Your task to perform on an android device: open app "Adobe Acrobat Reader" (install if not already installed) and go to login screen Image 0: 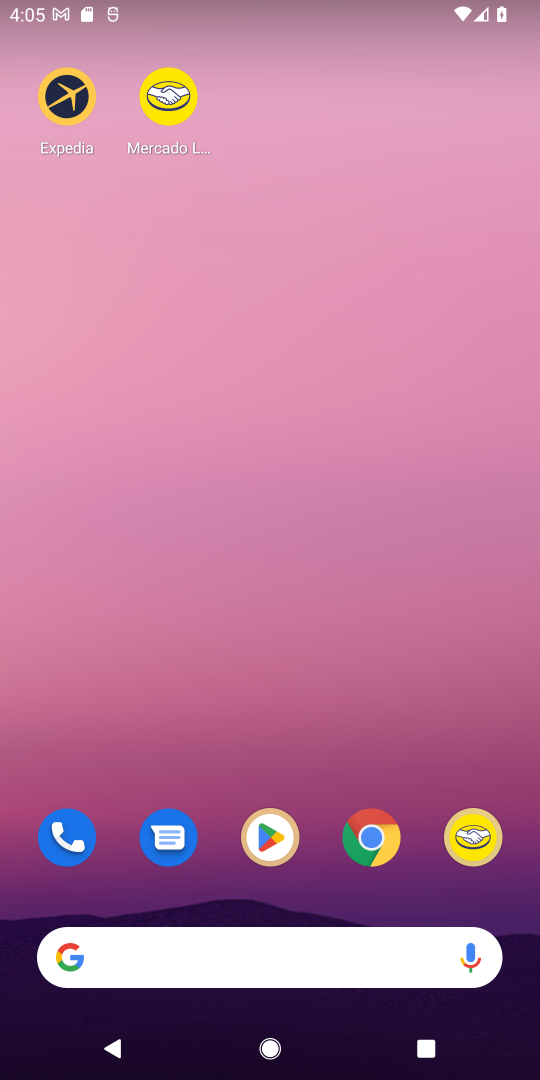
Step 0: press home button
Your task to perform on an android device: open app "Adobe Acrobat Reader" (install if not already installed) and go to login screen Image 1: 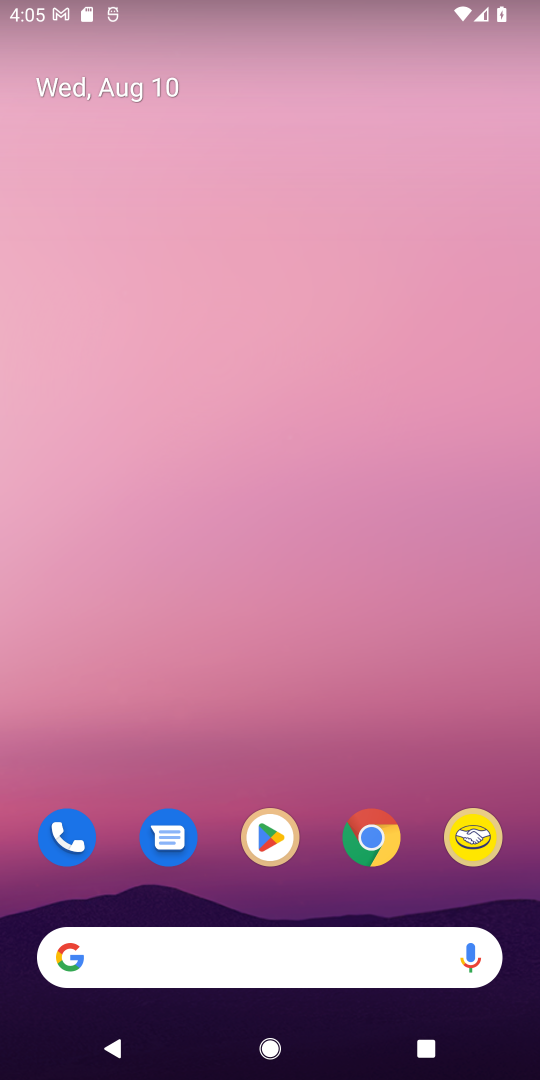
Step 1: click (266, 825)
Your task to perform on an android device: open app "Adobe Acrobat Reader" (install if not already installed) and go to login screen Image 2: 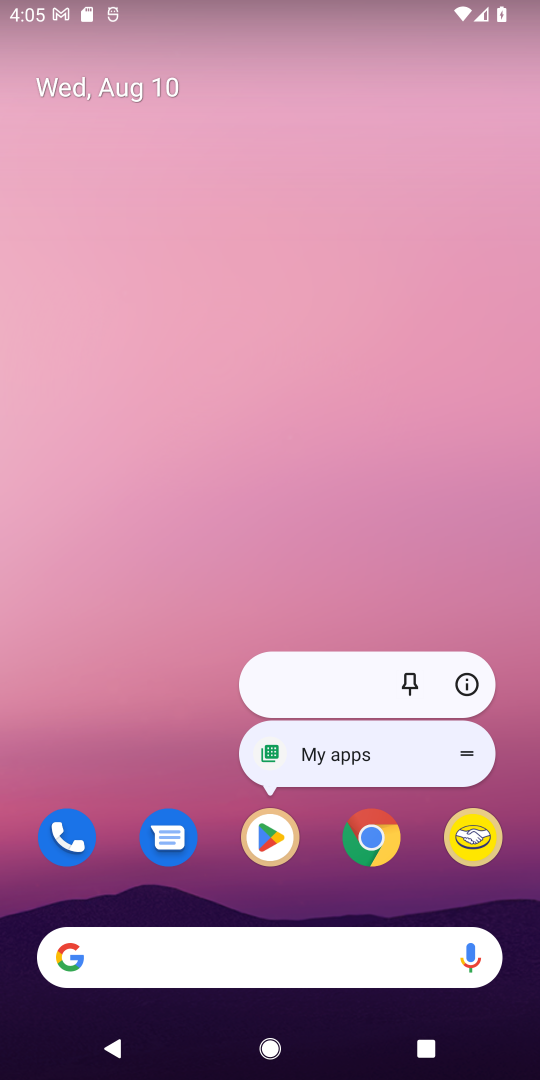
Step 2: click (266, 823)
Your task to perform on an android device: open app "Adobe Acrobat Reader" (install if not already installed) and go to login screen Image 3: 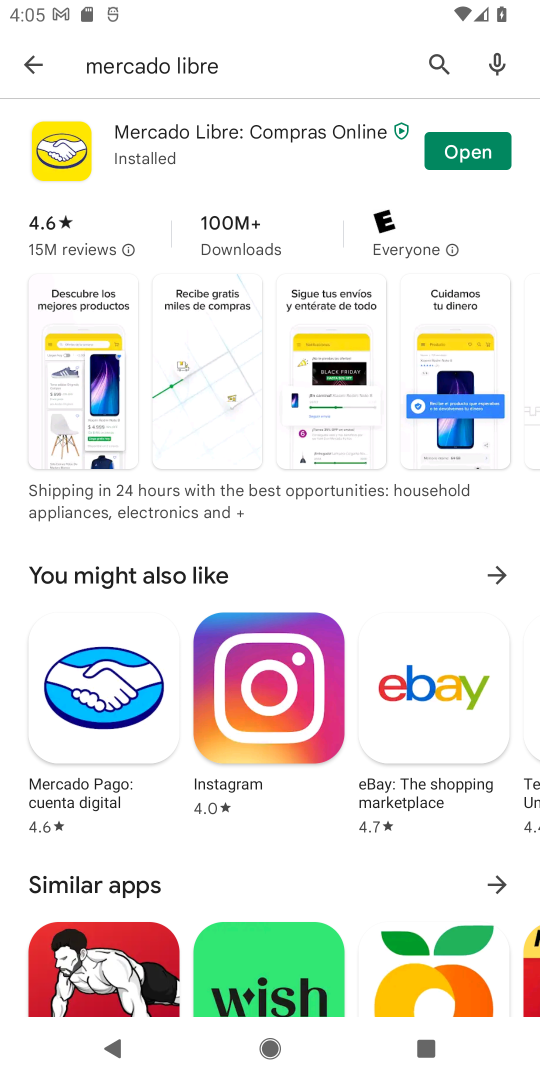
Step 3: click (435, 59)
Your task to perform on an android device: open app "Adobe Acrobat Reader" (install if not already installed) and go to login screen Image 4: 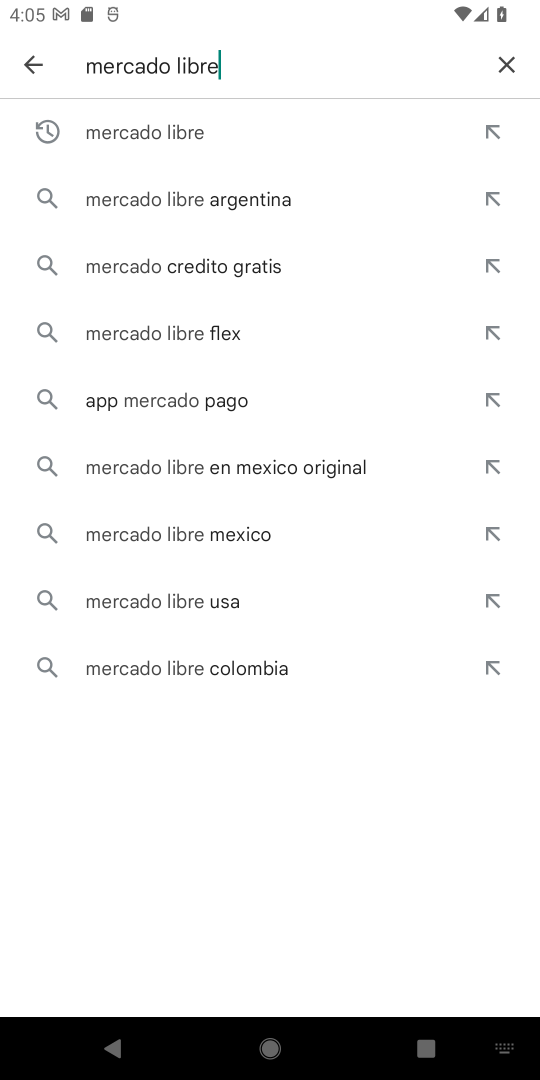
Step 4: click (502, 65)
Your task to perform on an android device: open app "Adobe Acrobat Reader" (install if not already installed) and go to login screen Image 5: 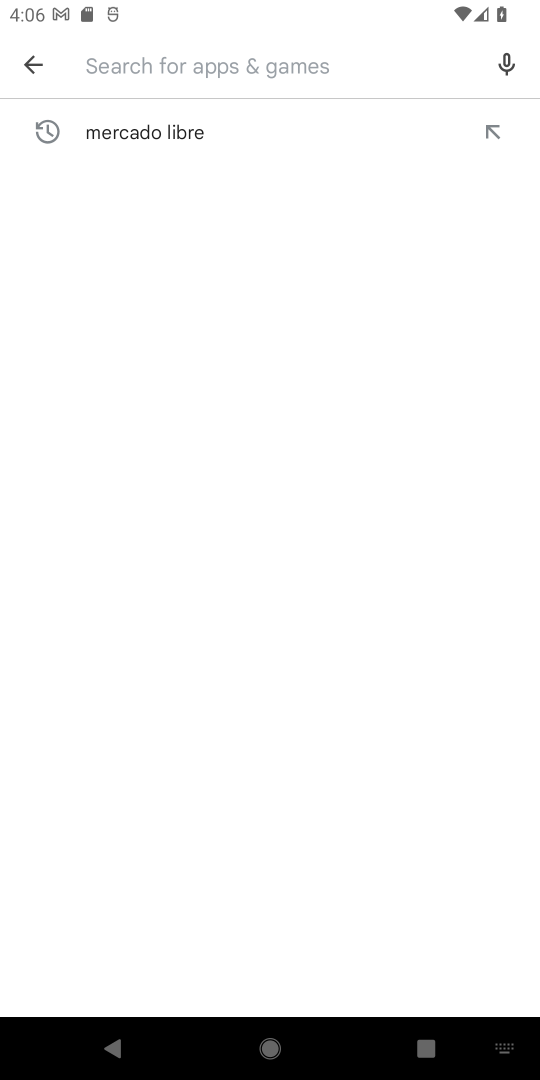
Step 5: type "Adobe Acrobat Reader"
Your task to perform on an android device: open app "Adobe Acrobat Reader" (install if not already installed) and go to login screen Image 6: 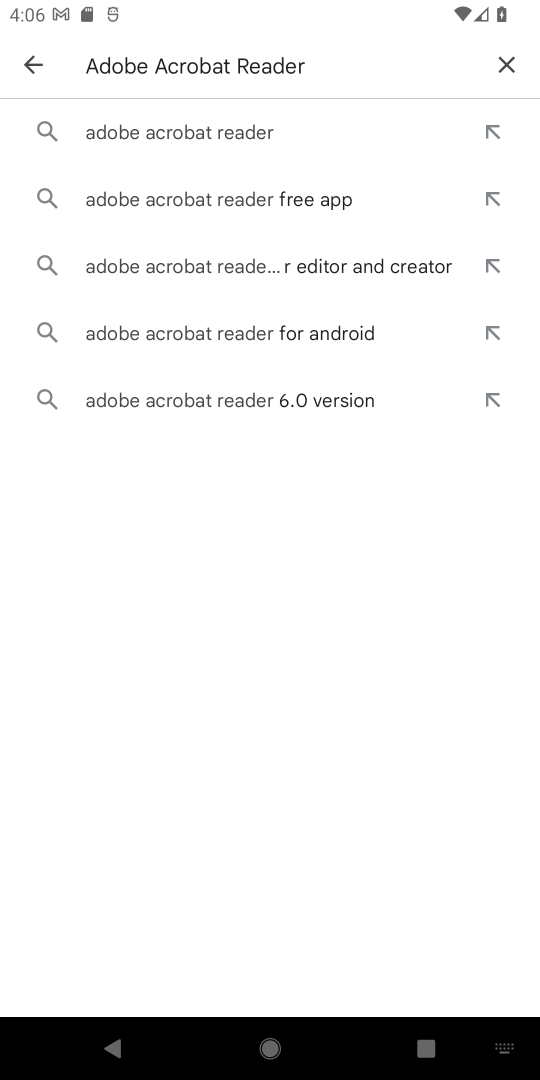
Step 6: click (259, 134)
Your task to perform on an android device: open app "Adobe Acrobat Reader" (install if not already installed) and go to login screen Image 7: 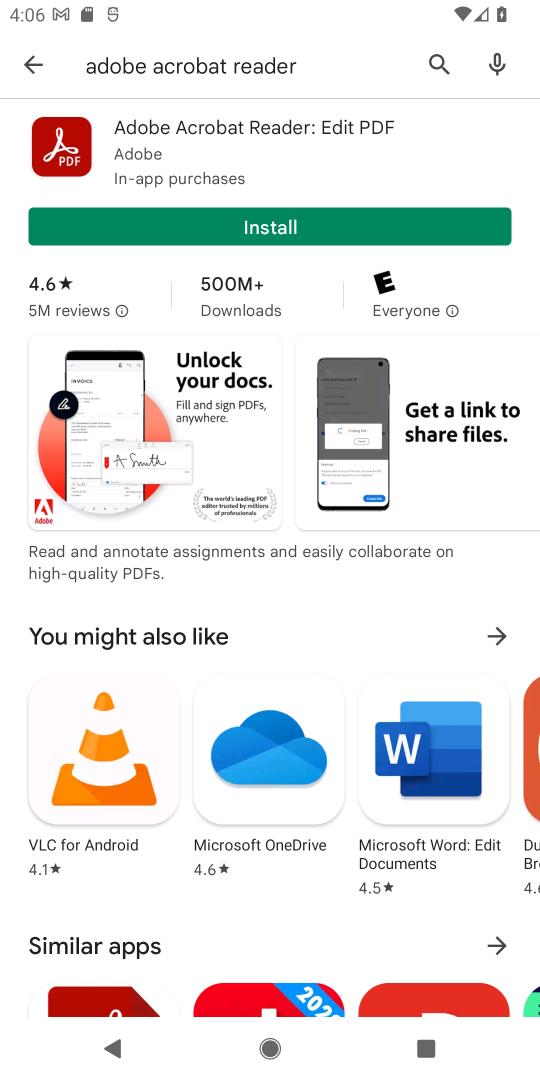
Step 7: click (301, 225)
Your task to perform on an android device: open app "Adobe Acrobat Reader" (install if not already installed) and go to login screen Image 8: 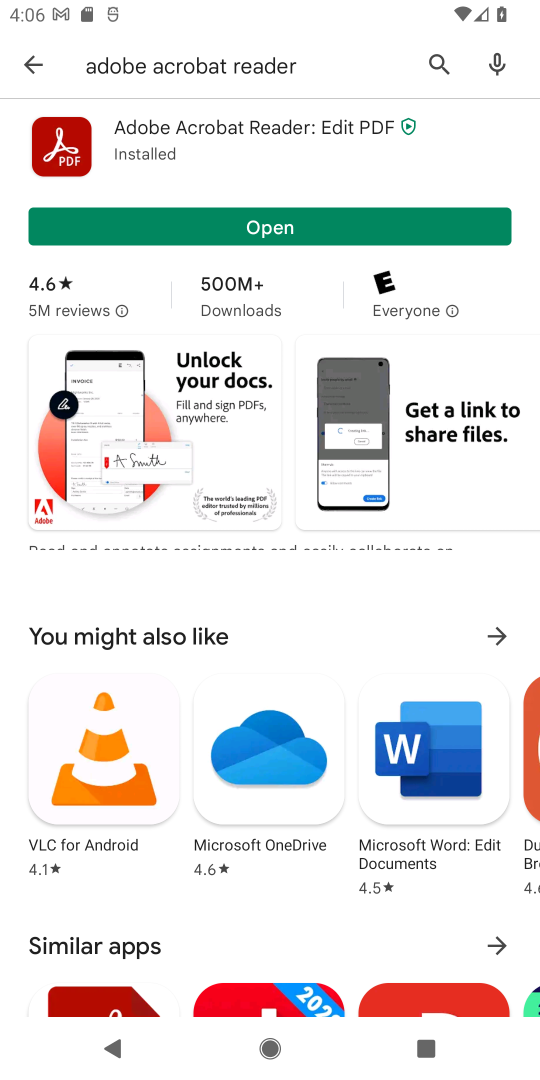
Step 8: click (286, 231)
Your task to perform on an android device: open app "Adobe Acrobat Reader" (install if not already installed) and go to login screen Image 9: 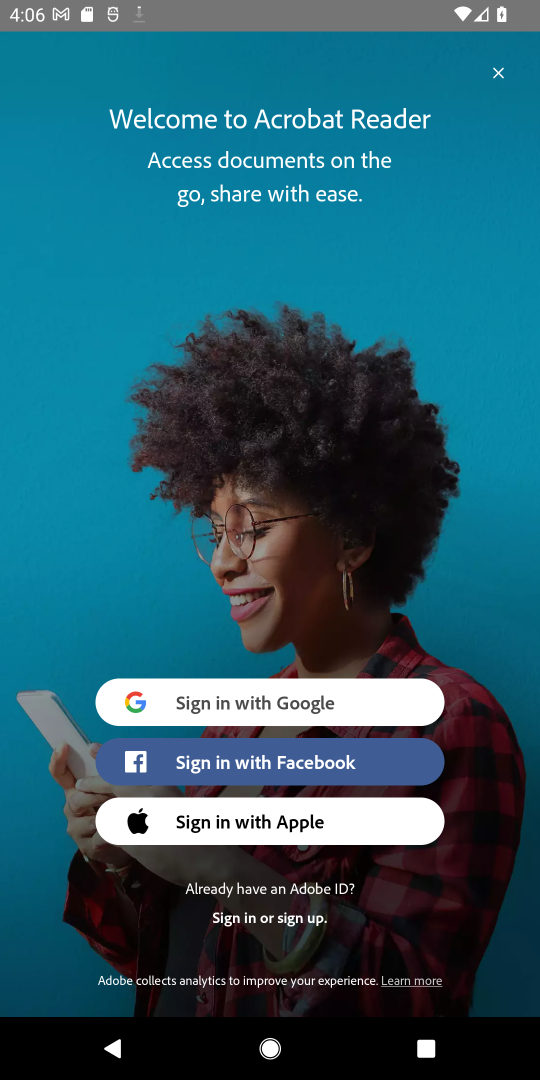
Step 9: task complete